Your task to perform on an android device: add a contact Image 0: 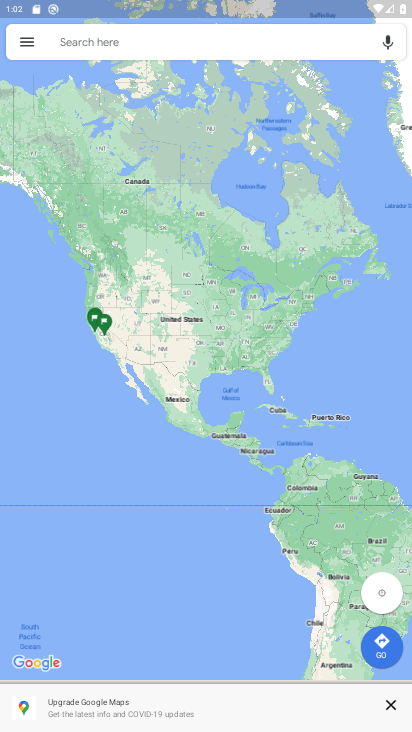
Step 0: press home button
Your task to perform on an android device: add a contact Image 1: 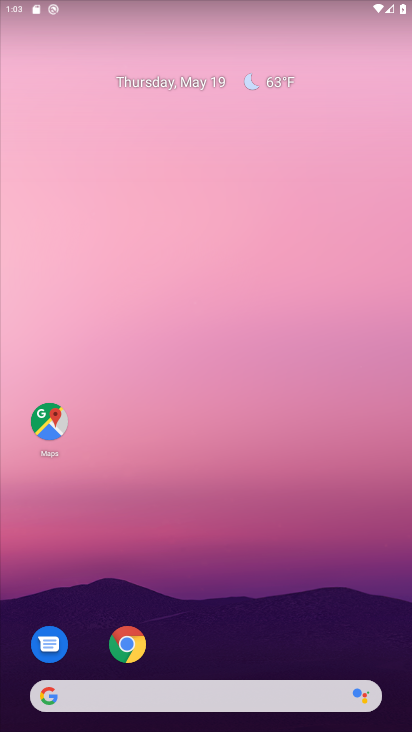
Step 1: drag from (240, 611) to (284, 290)
Your task to perform on an android device: add a contact Image 2: 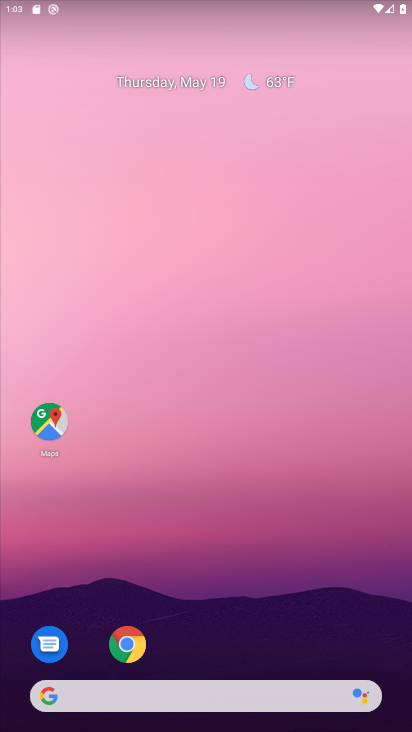
Step 2: drag from (210, 634) to (345, 250)
Your task to perform on an android device: add a contact Image 3: 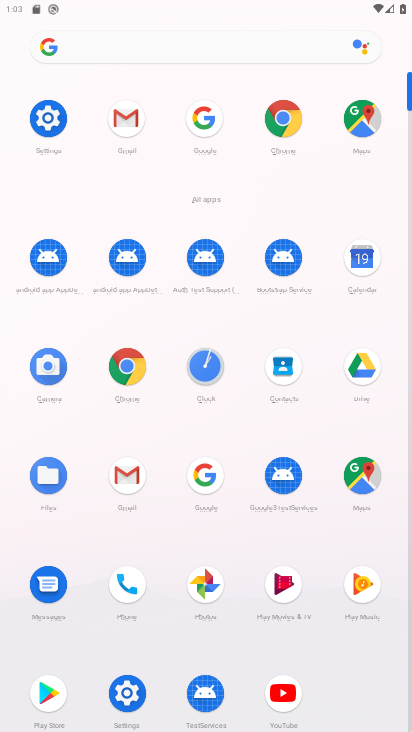
Step 3: click (286, 364)
Your task to perform on an android device: add a contact Image 4: 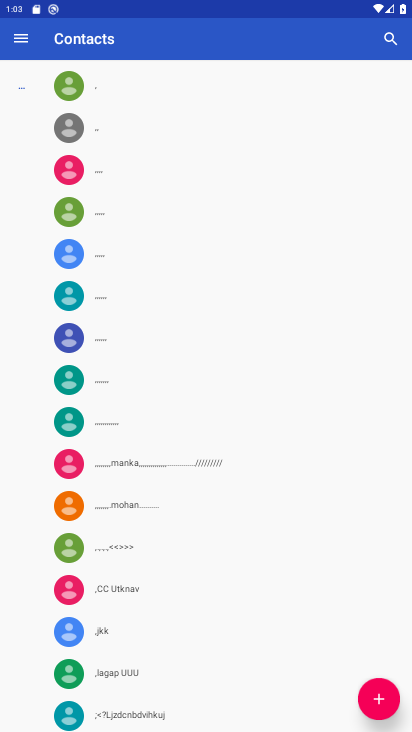
Step 4: click (390, 696)
Your task to perform on an android device: add a contact Image 5: 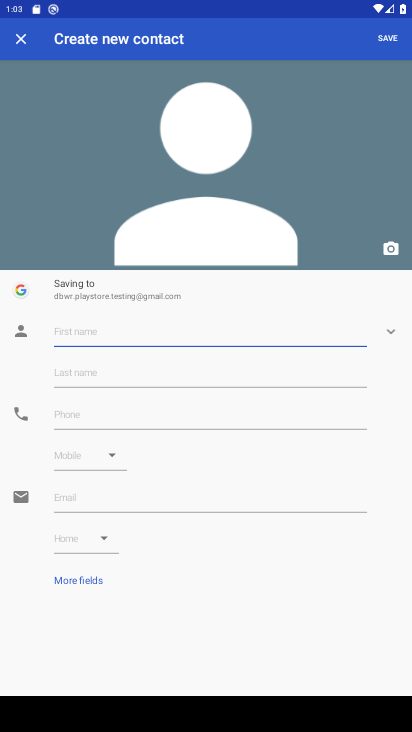
Step 5: type "nn,m"
Your task to perform on an android device: add a contact Image 6: 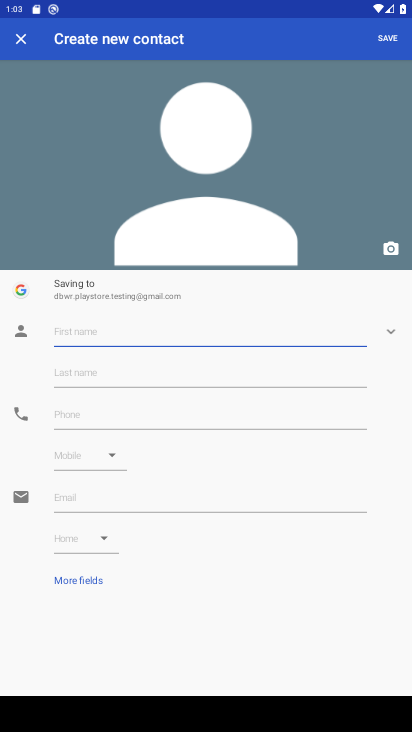
Step 6: click (235, 377)
Your task to perform on an android device: add a contact Image 7: 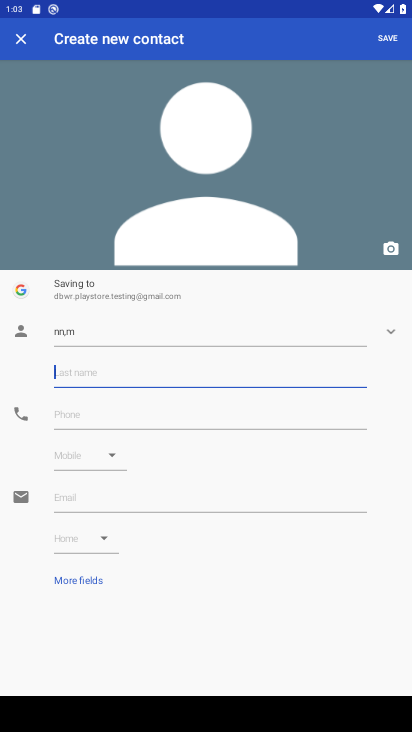
Step 7: type "mmmmmkk"
Your task to perform on an android device: add a contact Image 8: 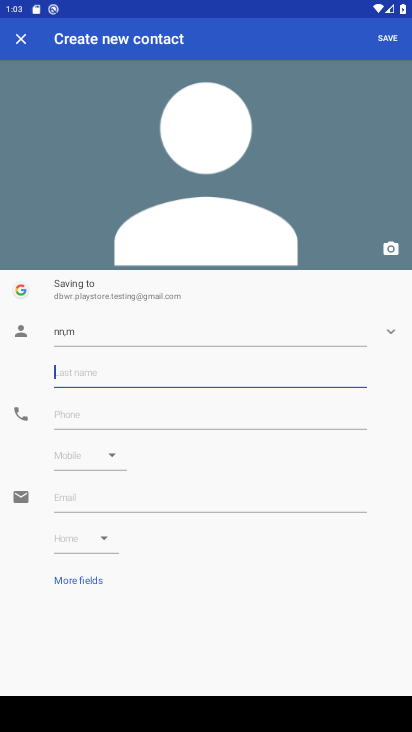
Step 8: click (157, 418)
Your task to perform on an android device: add a contact Image 9: 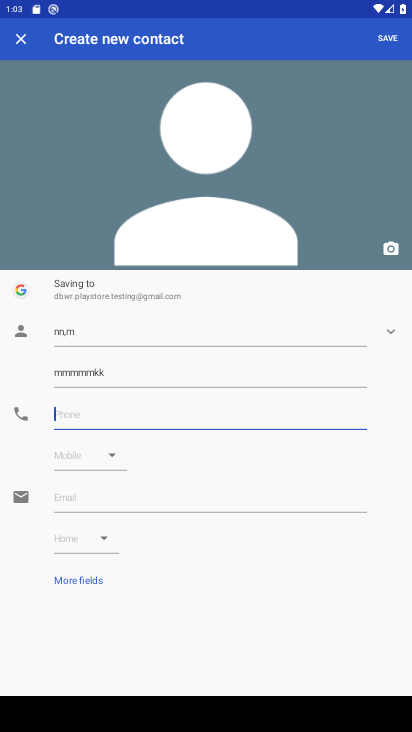
Step 9: type "354657767"
Your task to perform on an android device: add a contact Image 10: 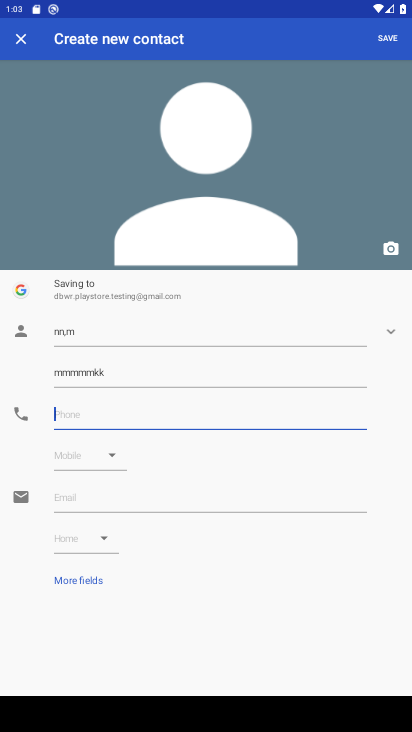
Step 10: click (176, 487)
Your task to perform on an android device: add a contact Image 11: 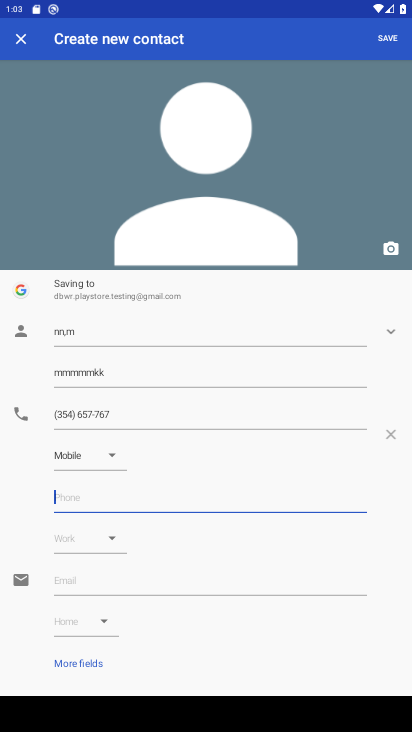
Step 11: click (380, 36)
Your task to perform on an android device: add a contact Image 12: 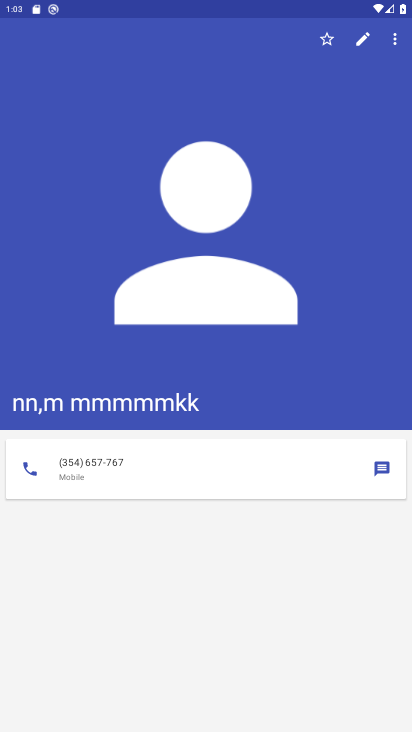
Step 12: task complete